Your task to perform on an android device: Open maps Image 0: 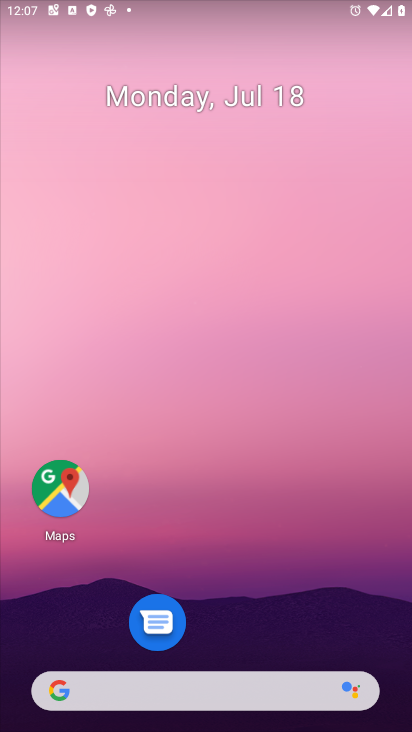
Step 0: click (59, 483)
Your task to perform on an android device: Open maps Image 1: 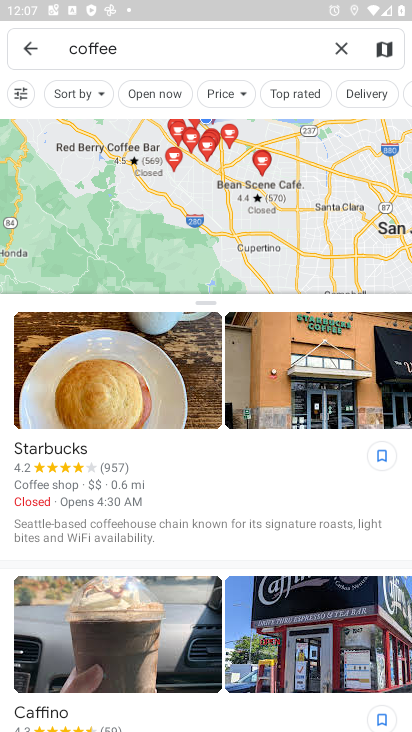
Step 1: task complete